Your task to perform on an android device: change the clock display to analog Image 0: 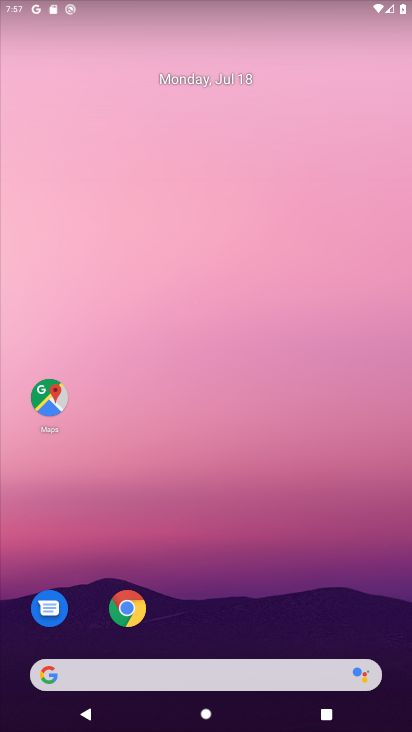
Step 0: drag from (194, 637) to (93, 466)
Your task to perform on an android device: change the clock display to analog Image 1: 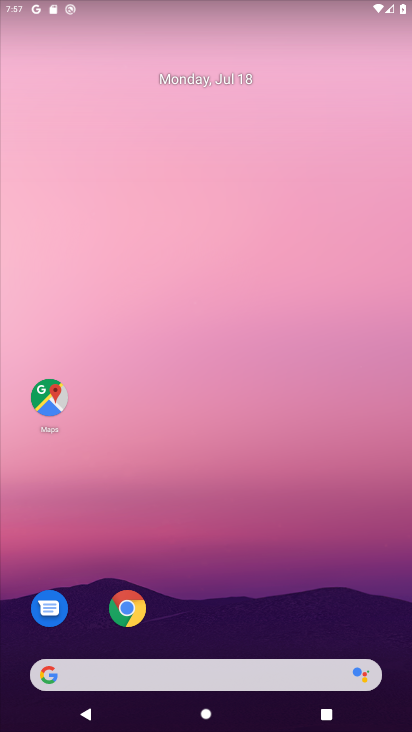
Step 1: click (201, 352)
Your task to perform on an android device: change the clock display to analog Image 2: 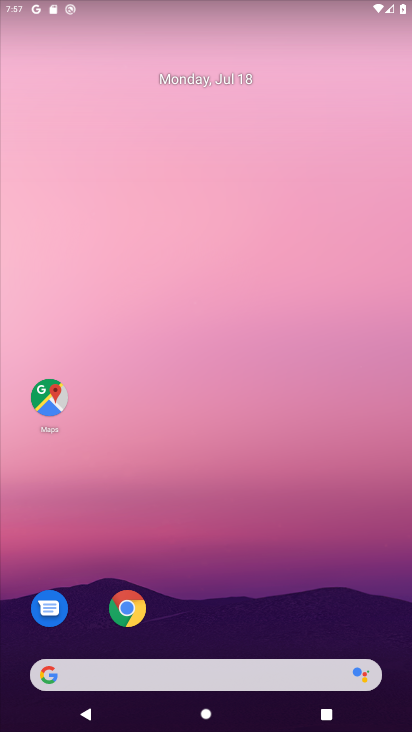
Step 2: drag from (235, 186) to (218, 111)
Your task to perform on an android device: change the clock display to analog Image 3: 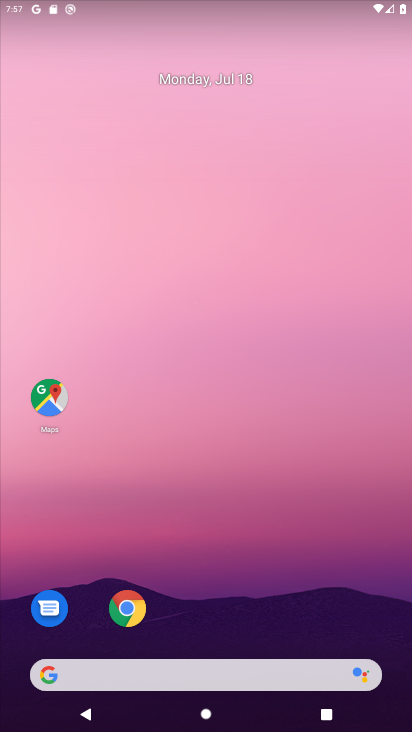
Step 3: drag from (210, 643) to (197, 26)
Your task to perform on an android device: change the clock display to analog Image 4: 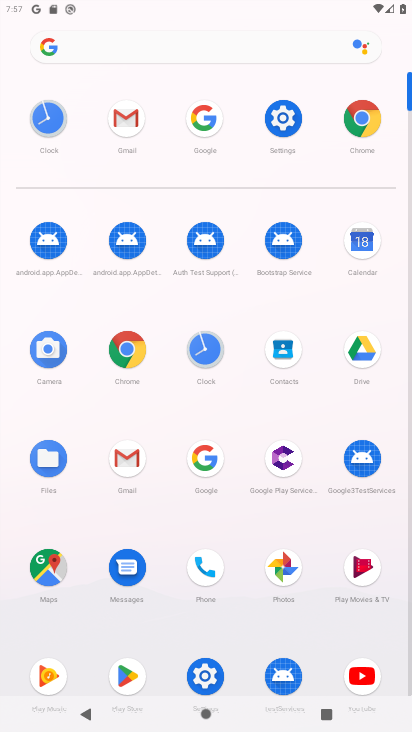
Step 4: click (206, 341)
Your task to perform on an android device: change the clock display to analog Image 5: 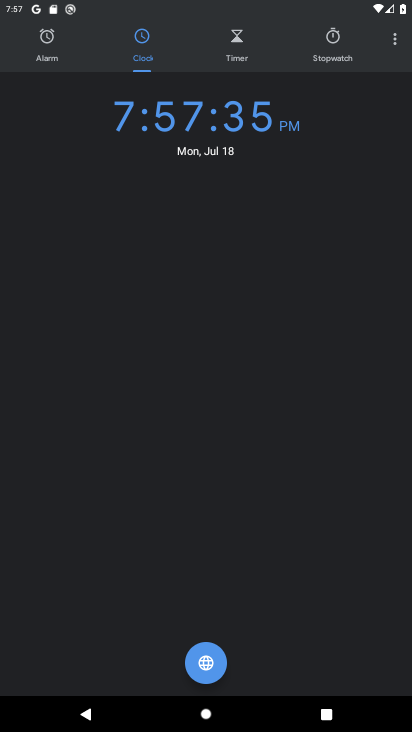
Step 5: click (396, 50)
Your task to perform on an android device: change the clock display to analog Image 6: 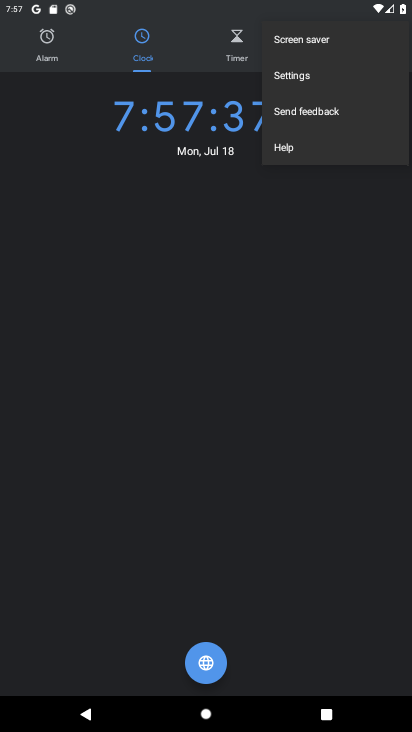
Step 6: click (299, 80)
Your task to perform on an android device: change the clock display to analog Image 7: 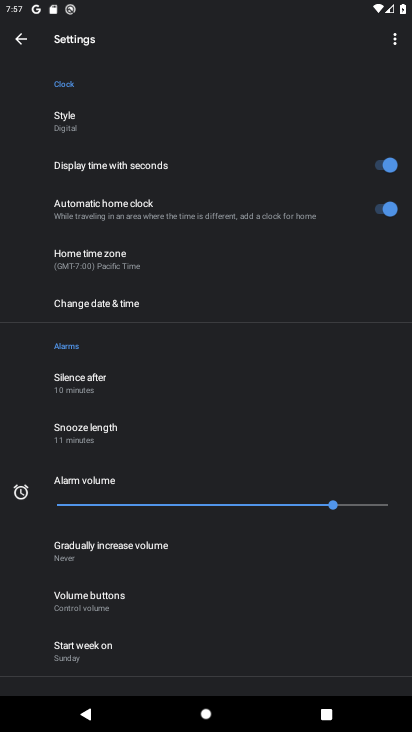
Step 7: click (55, 110)
Your task to perform on an android device: change the clock display to analog Image 8: 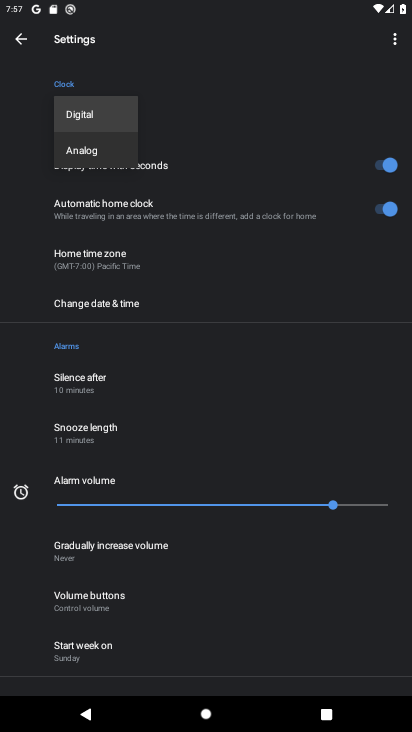
Step 8: click (108, 149)
Your task to perform on an android device: change the clock display to analog Image 9: 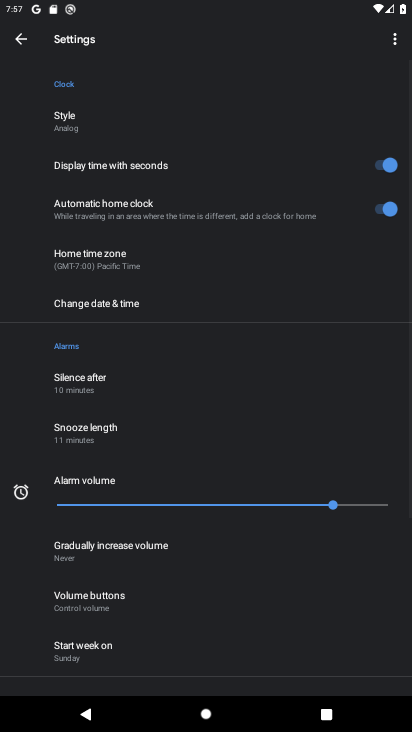
Step 9: task complete